Your task to perform on an android device: uninstall "Facebook" Image 0: 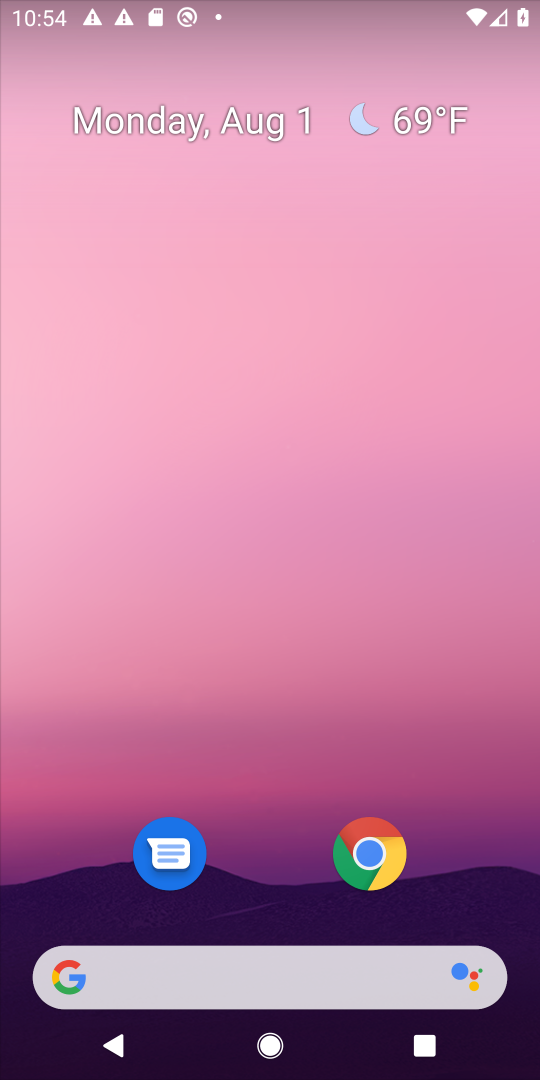
Step 0: drag from (230, 908) to (336, 54)
Your task to perform on an android device: uninstall "Facebook" Image 1: 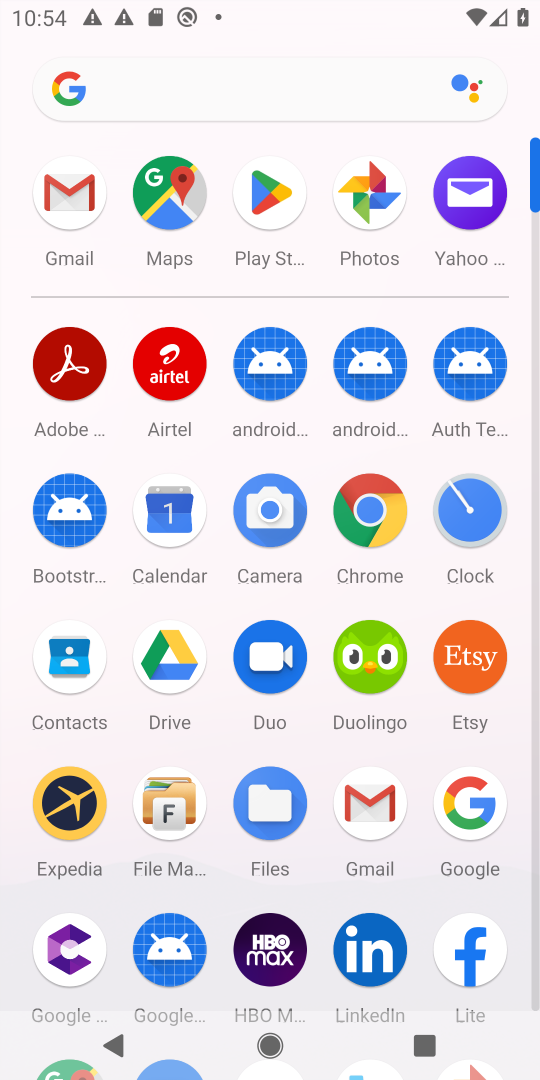
Step 1: click (259, 196)
Your task to perform on an android device: uninstall "Facebook" Image 2: 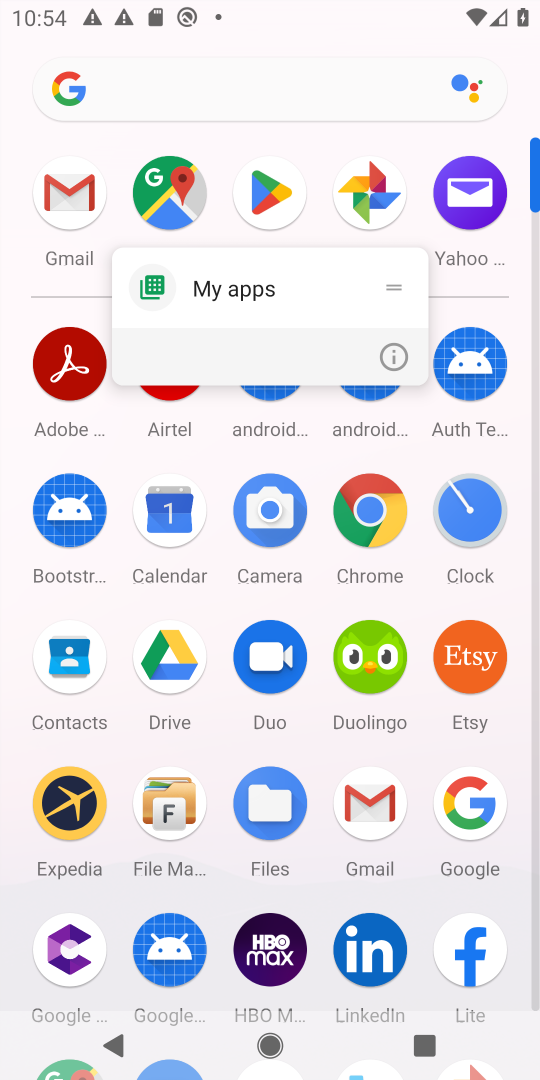
Step 2: click (398, 348)
Your task to perform on an android device: uninstall "Facebook" Image 3: 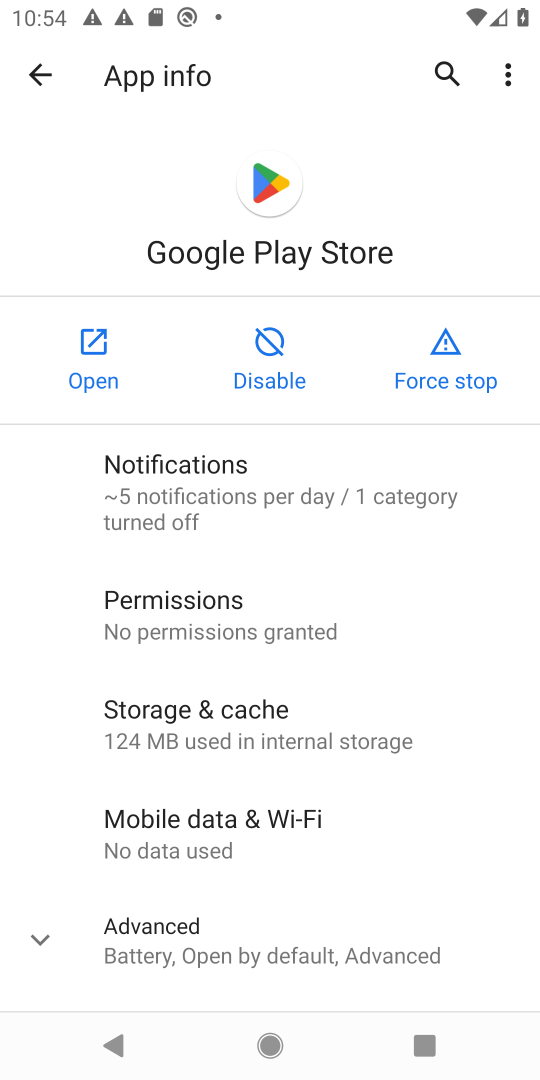
Step 3: click (87, 343)
Your task to perform on an android device: uninstall "Facebook" Image 4: 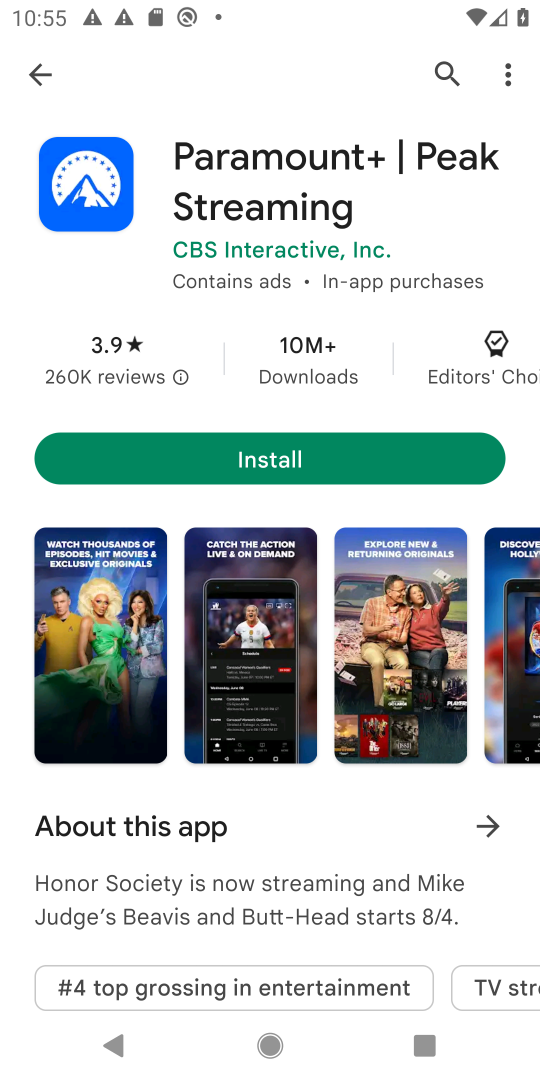
Step 4: drag from (267, 699) to (313, 979)
Your task to perform on an android device: uninstall "Facebook" Image 5: 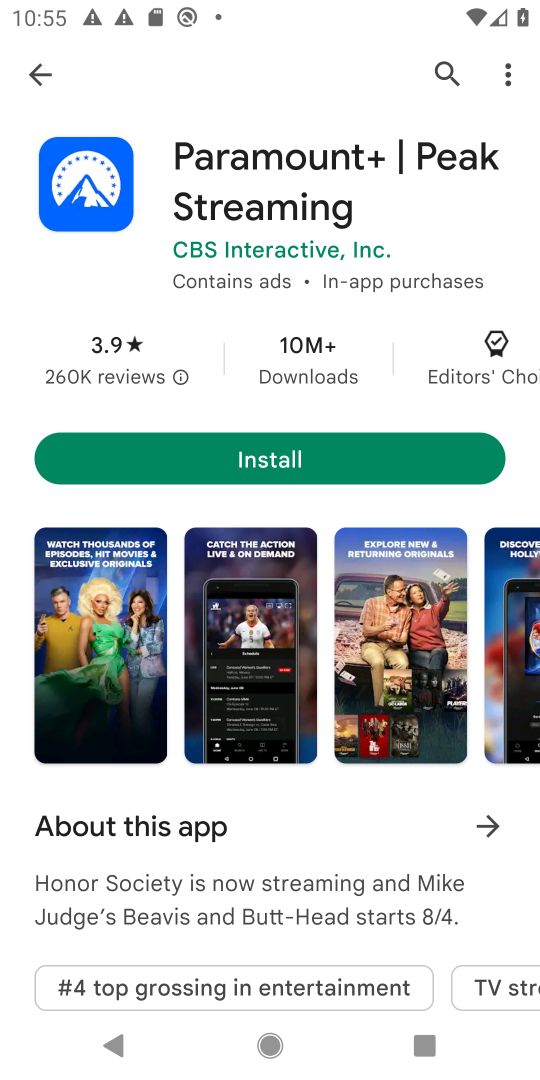
Step 5: click (443, 67)
Your task to perform on an android device: uninstall "Facebook" Image 6: 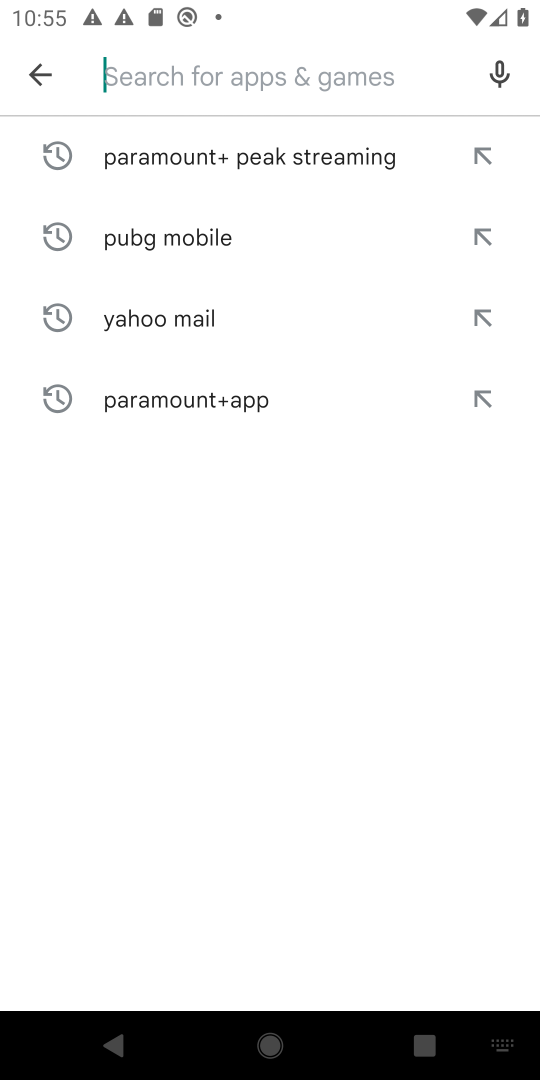
Step 6: type "Facebook"
Your task to perform on an android device: uninstall "Facebook" Image 7: 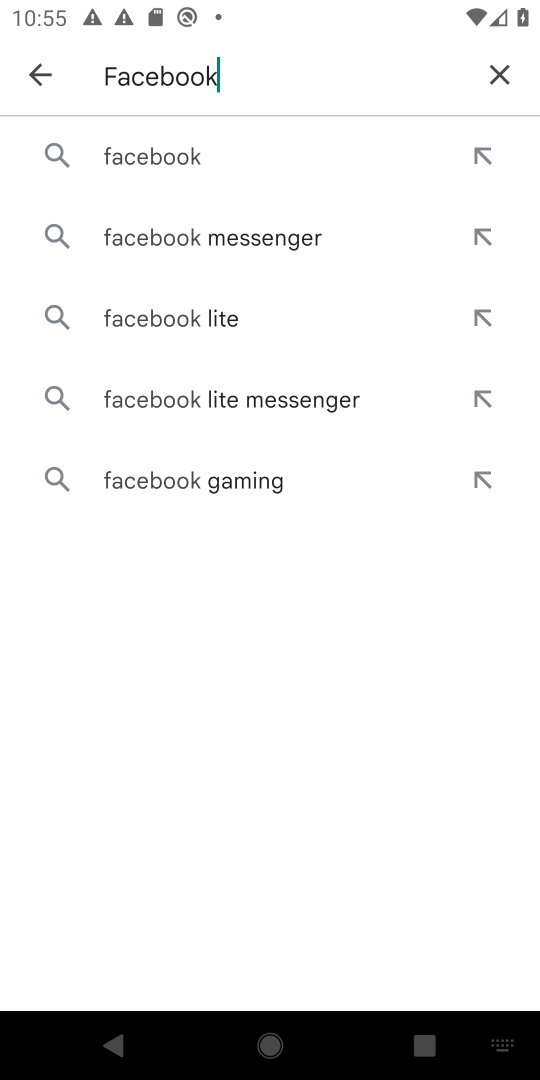
Step 7: type ""
Your task to perform on an android device: uninstall "Facebook" Image 8: 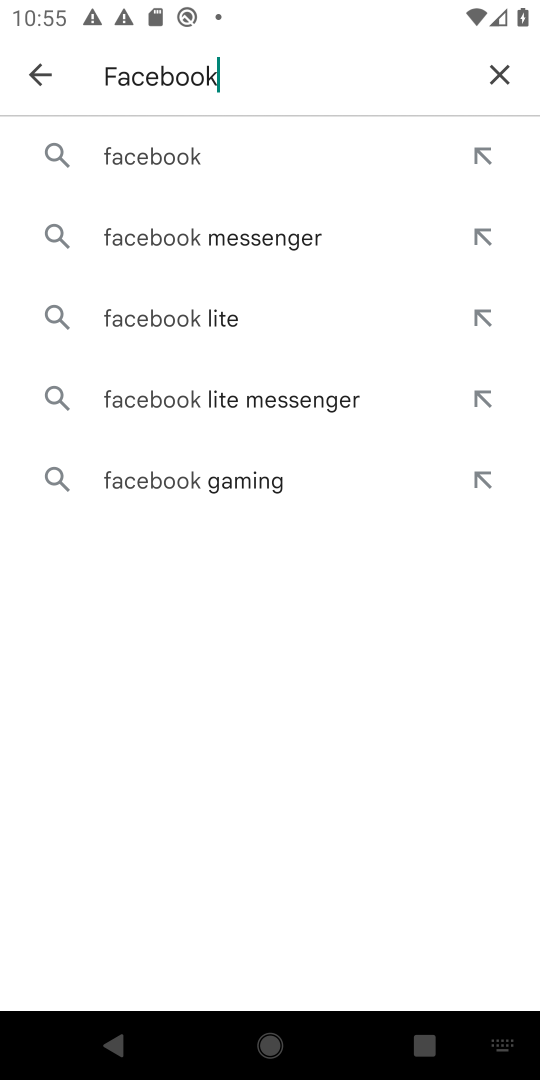
Step 8: click (168, 154)
Your task to perform on an android device: uninstall "Facebook" Image 9: 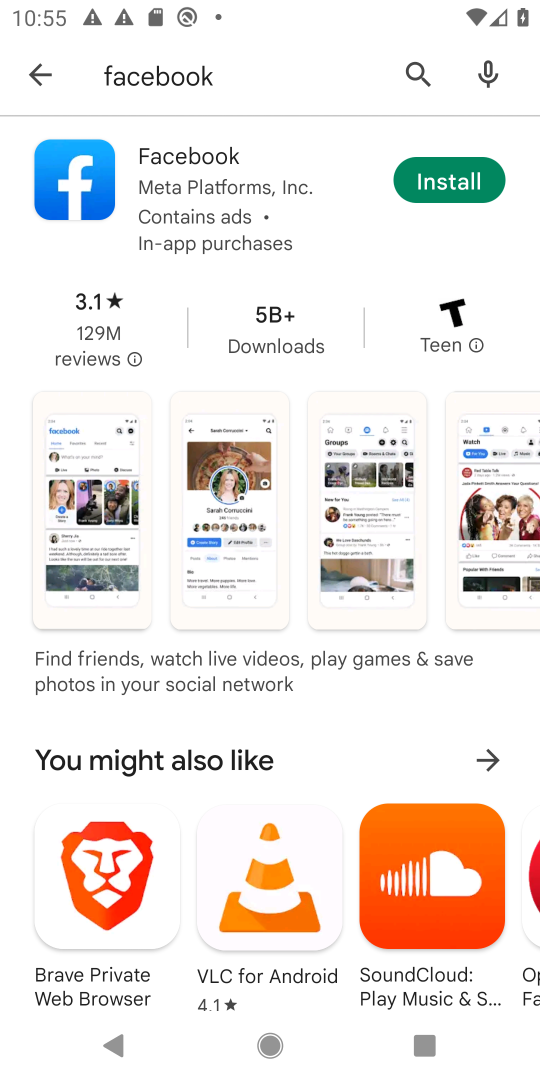
Step 9: click (165, 184)
Your task to perform on an android device: uninstall "Facebook" Image 10: 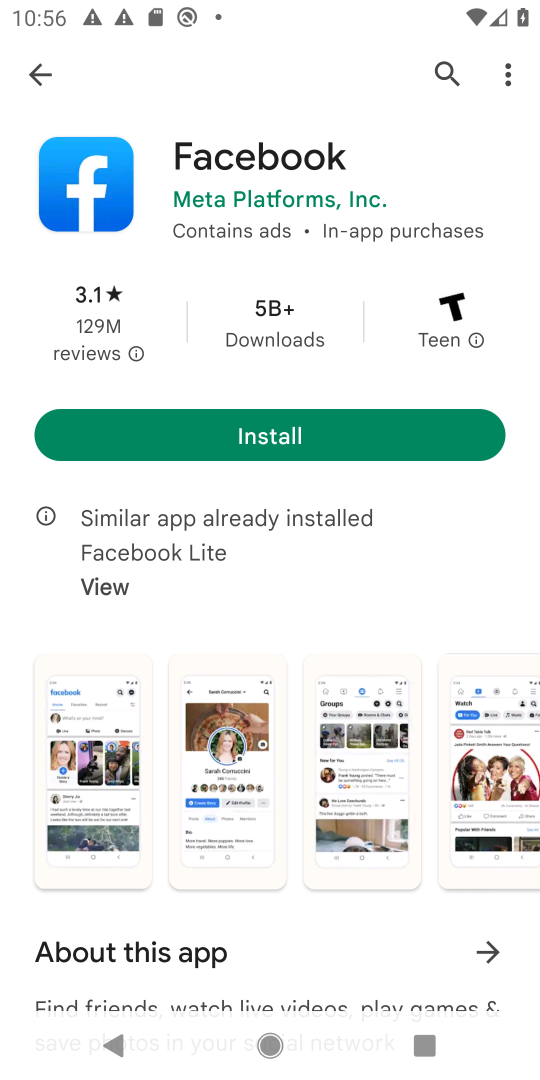
Step 10: task complete